Your task to perform on an android device: see tabs open on other devices in the chrome app Image 0: 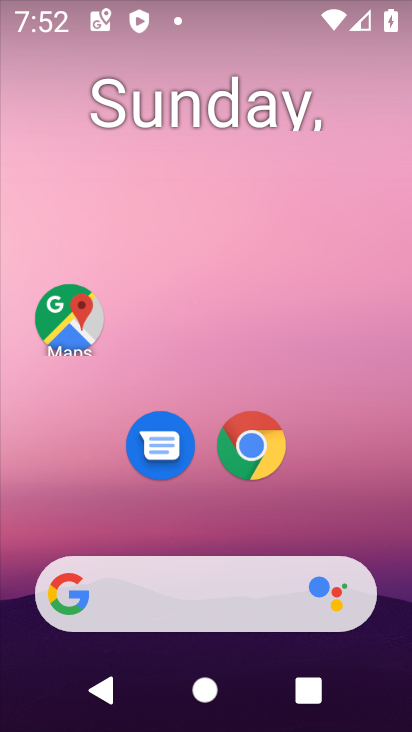
Step 0: press home button
Your task to perform on an android device: see tabs open on other devices in the chrome app Image 1: 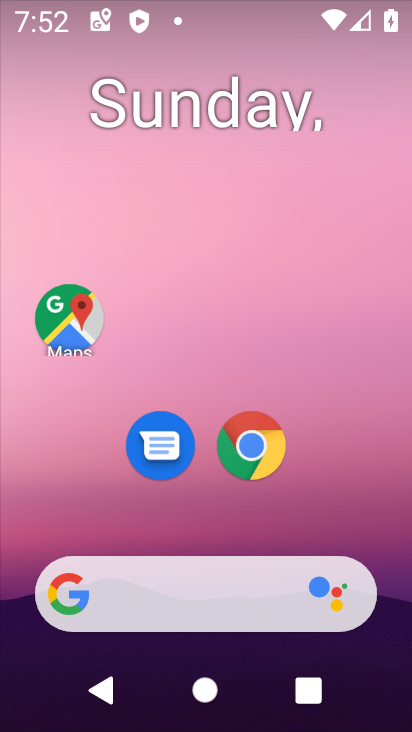
Step 1: click (247, 441)
Your task to perform on an android device: see tabs open on other devices in the chrome app Image 2: 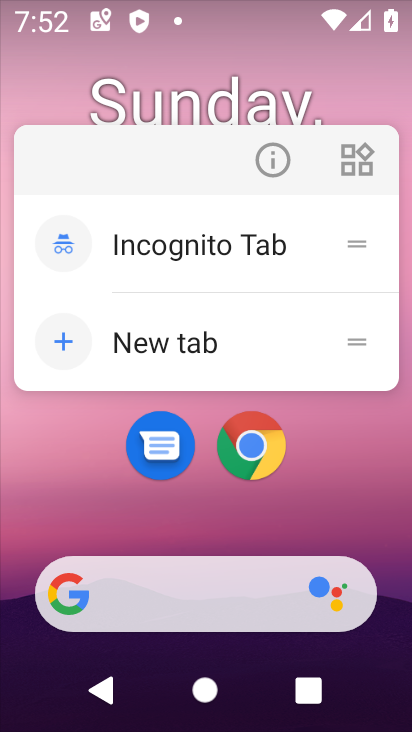
Step 2: click (247, 440)
Your task to perform on an android device: see tabs open on other devices in the chrome app Image 3: 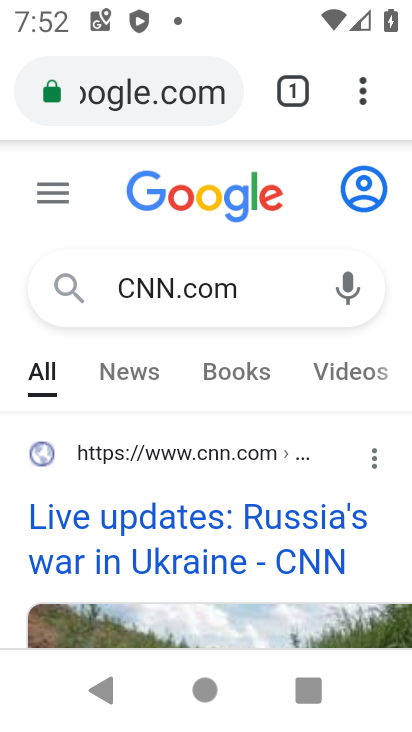
Step 3: task complete